Your task to perform on an android device: Show the shopping cart on bestbuy.com. Image 0: 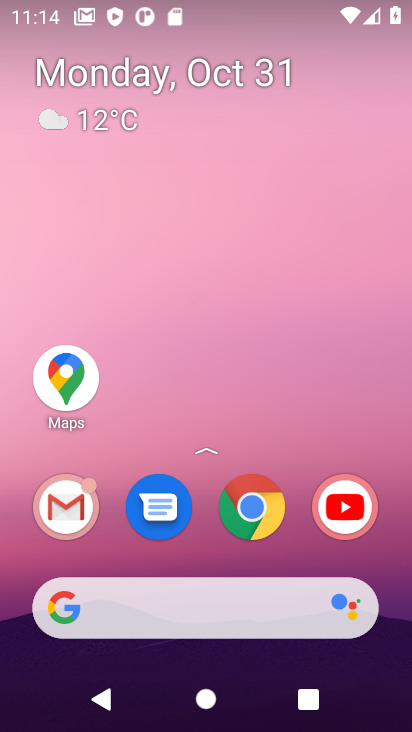
Step 0: drag from (191, 215) to (224, 12)
Your task to perform on an android device: Show the shopping cart on bestbuy.com. Image 1: 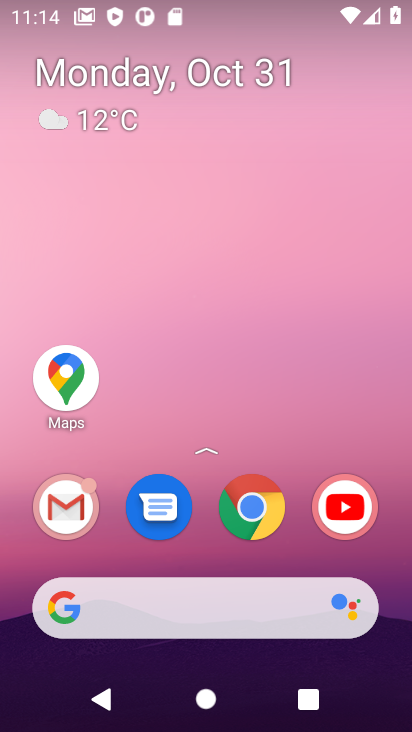
Step 1: drag from (189, 554) to (187, 53)
Your task to perform on an android device: Show the shopping cart on bestbuy.com. Image 2: 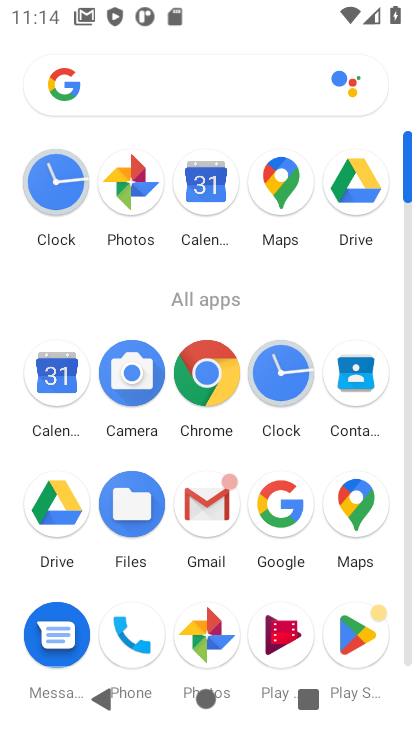
Step 2: click (197, 367)
Your task to perform on an android device: Show the shopping cart on bestbuy.com. Image 3: 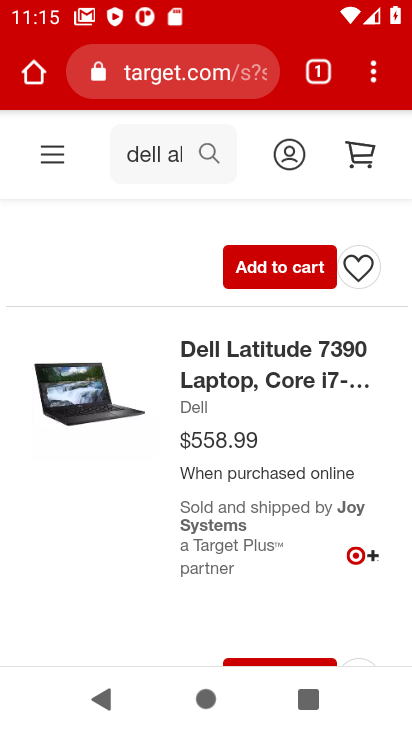
Step 3: click (187, 79)
Your task to perform on an android device: Show the shopping cart on bestbuy.com. Image 4: 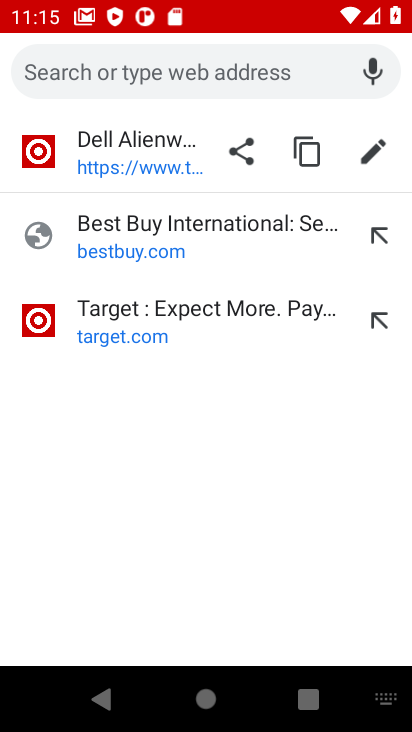
Step 4: type "bestbuy.com"
Your task to perform on an android device: Show the shopping cart on bestbuy.com. Image 5: 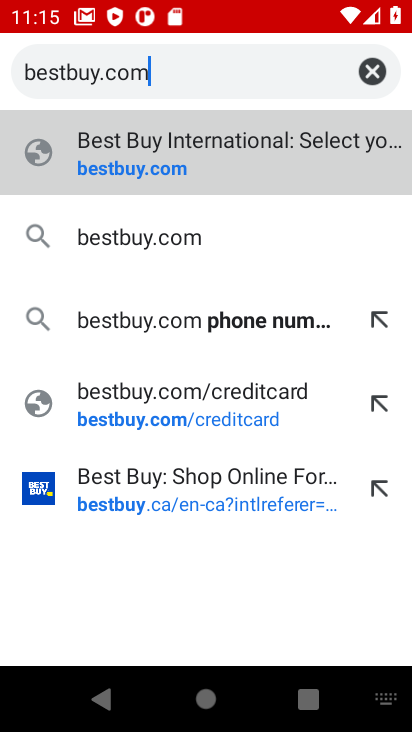
Step 5: press enter
Your task to perform on an android device: Show the shopping cart on bestbuy.com. Image 6: 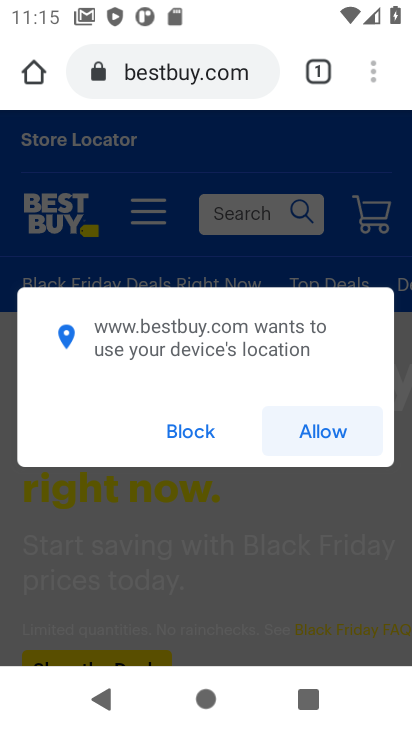
Step 6: click (211, 428)
Your task to perform on an android device: Show the shopping cart on bestbuy.com. Image 7: 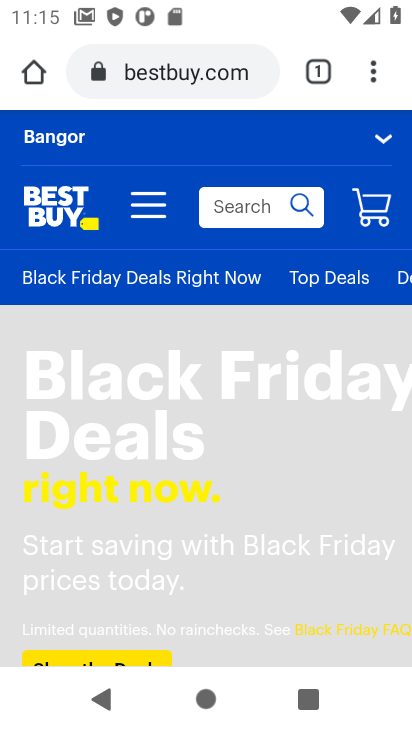
Step 7: click (386, 199)
Your task to perform on an android device: Show the shopping cart on bestbuy.com. Image 8: 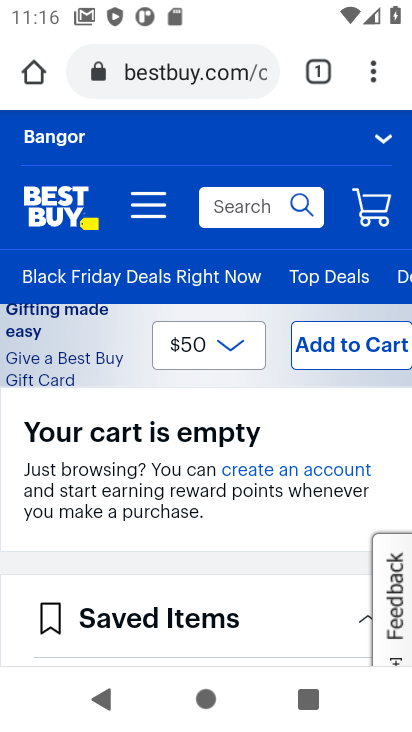
Step 8: task complete